Your task to perform on an android device: What's the weather today? Image 0: 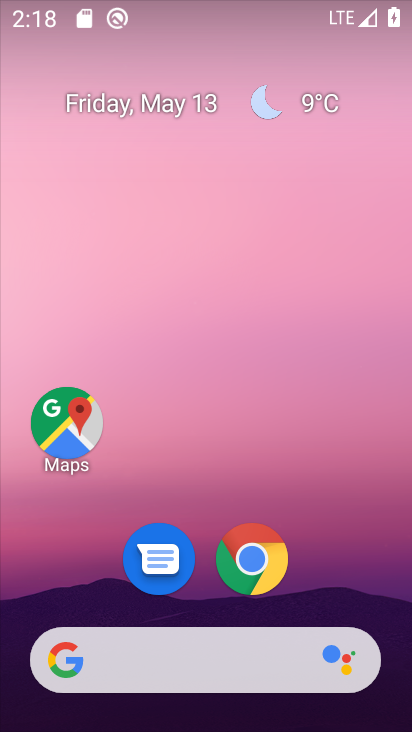
Step 0: drag from (393, 616) to (338, 300)
Your task to perform on an android device: What's the weather today? Image 1: 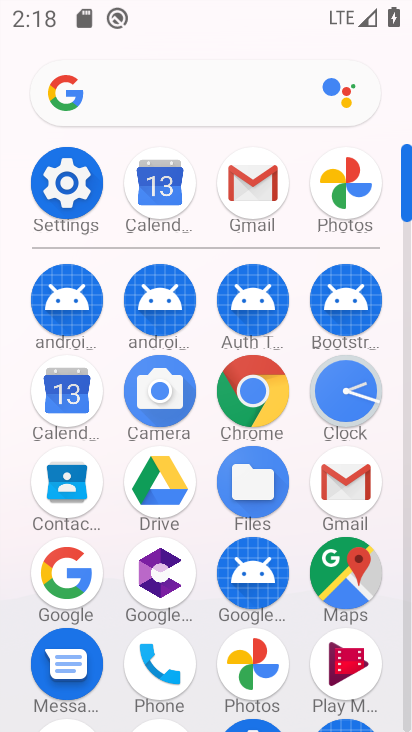
Step 1: press back button
Your task to perform on an android device: What's the weather today? Image 2: 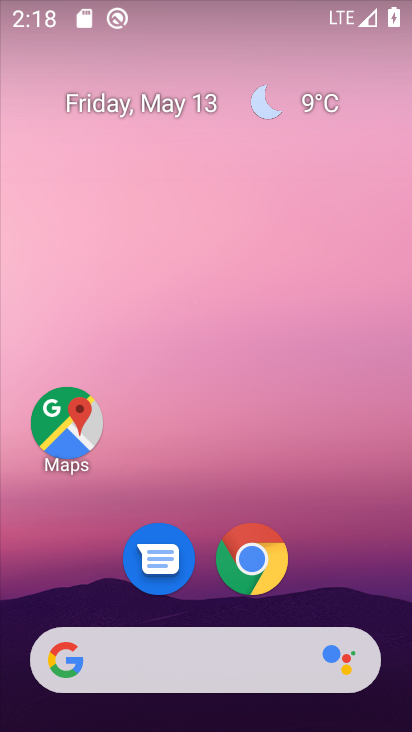
Step 2: click (316, 105)
Your task to perform on an android device: What's the weather today? Image 3: 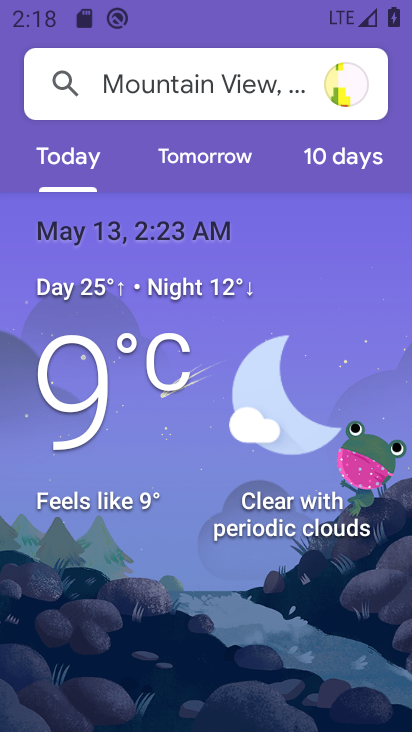
Step 3: click (304, 98)
Your task to perform on an android device: What's the weather today? Image 4: 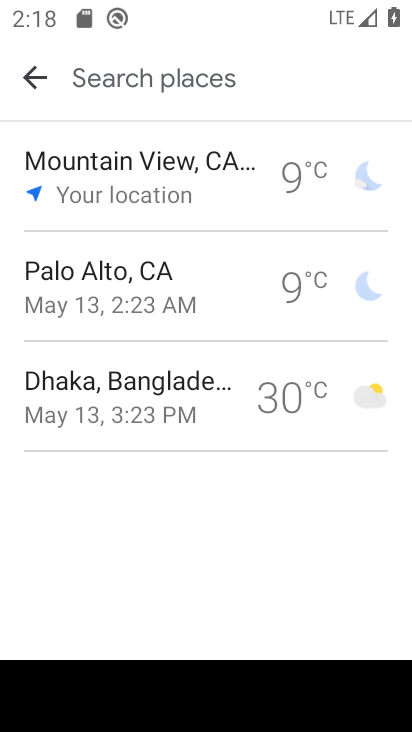
Step 4: task complete